Your task to perform on an android device: Open the Play Movies app and select the watchlist tab. Image 0: 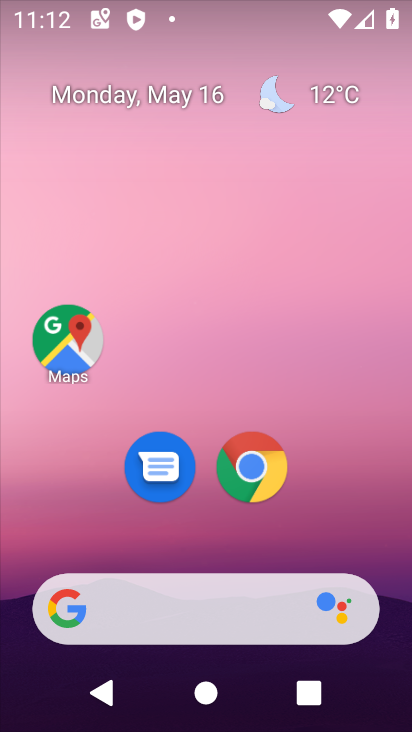
Step 0: drag from (203, 542) to (268, 10)
Your task to perform on an android device: Open the Play Movies app and select the watchlist tab. Image 1: 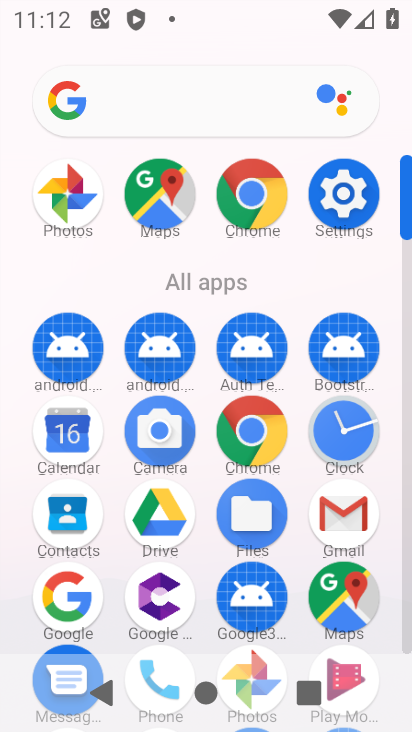
Step 1: drag from (302, 558) to (327, 246)
Your task to perform on an android device: Open the Play Movies app and select the watchlist tab. Image 2: 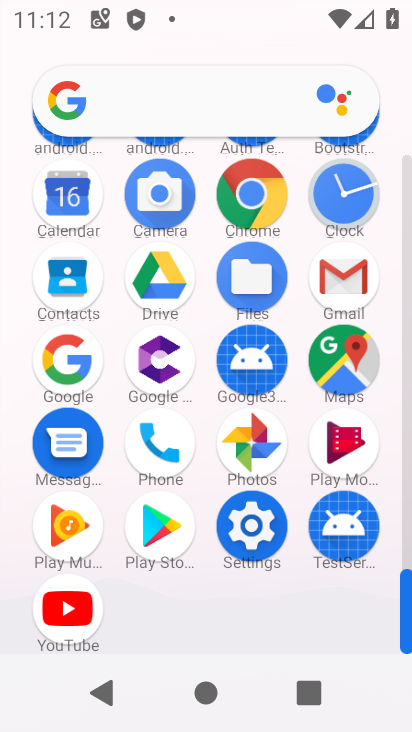
Step 2: click (340, 446)
Your task to perform on an android device: Open the Play Movies app and select the watchlist tab. Image 3: 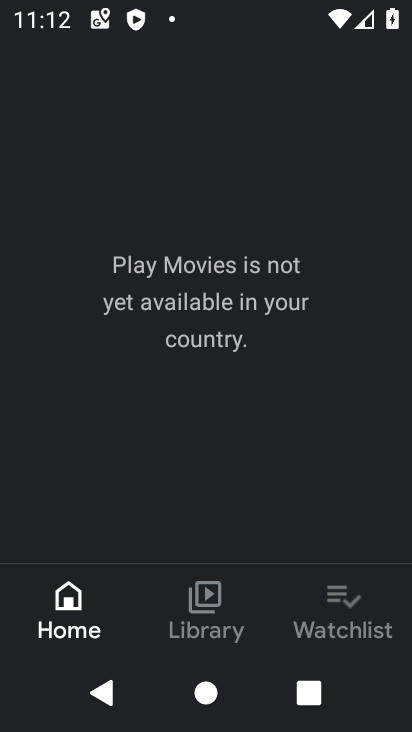
Step 3: click (343, 614)
Your task to perform on an android device: Open the Play Movies app and select the watchlist tab. Image 4: 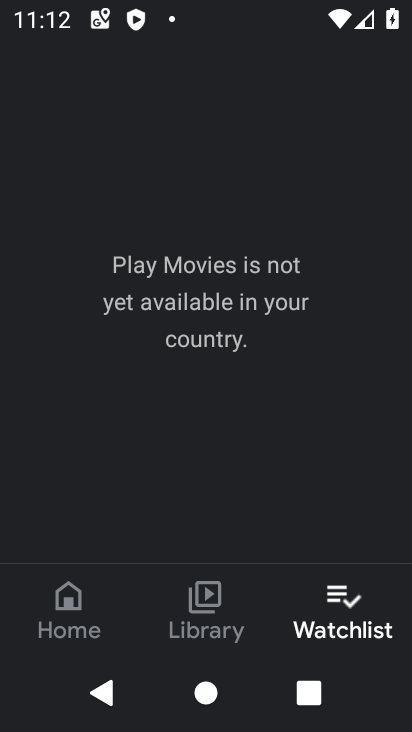
Step 4: task complete